Your task to perform on an android device: toggle show notifications on the lock screen Image 0: 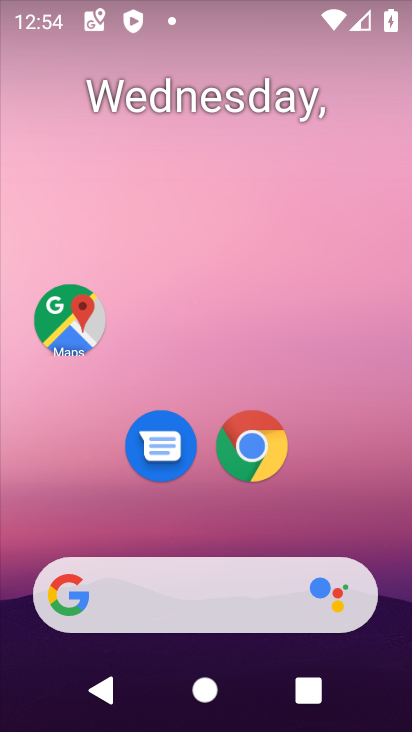
Step 0: drag from (199, 424) to (176, 54)
Your task to perform on an android device: toggle show notifications on the lock screen Image 1: 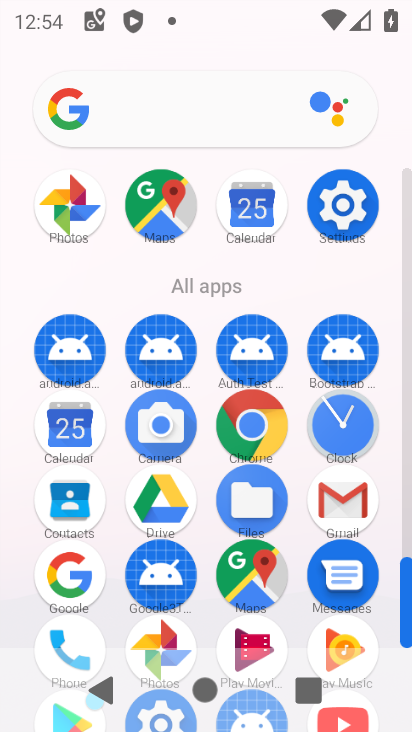
Step 1: click (345, 212)
Your task to perform on an android device: toggle show notifications on the lock screen Image 2: 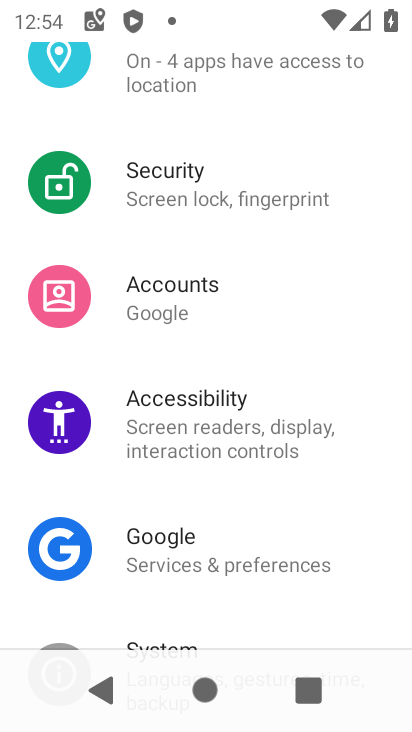
Step 2: drag from (202, 286) to (270, 638)
Your task to perform on an android device: toggle show notifications on the lock screen Image 3: 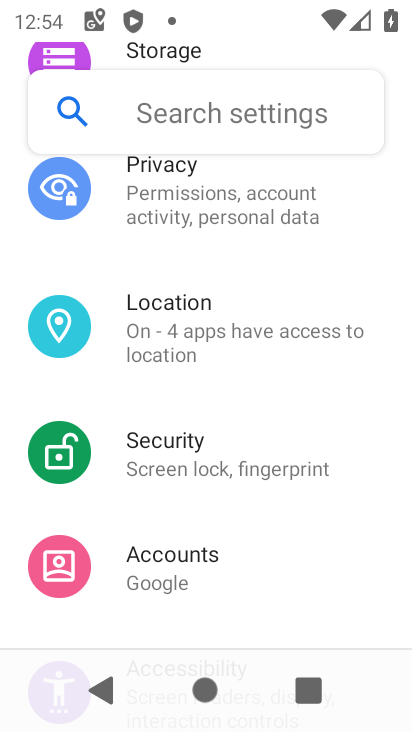
Step 3: drag from (309, 513) to (364, 709)
Your task to perform on an android device: toggle show notifications on the lock screen Image 4: 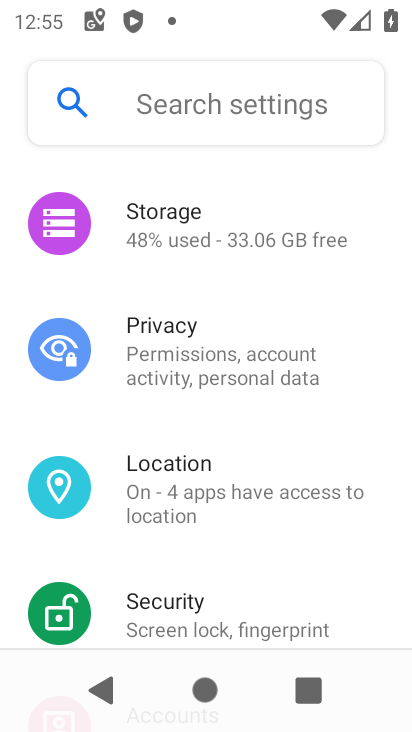
Step 4: drag from (271, 427) to (271, 682)
Your task to perform on an android device: toggle show notifications on the lock screen Image 5: 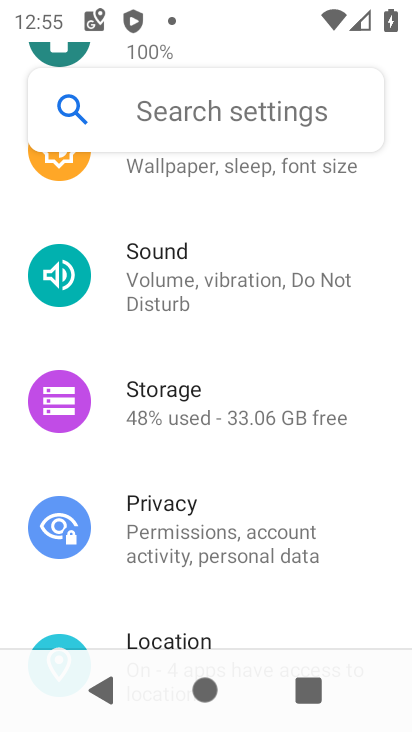
Step 5: drag from (245, 400) to (242, 694)
Your task to perform on an android device: toggle show notifications on the lock screen Image 6: 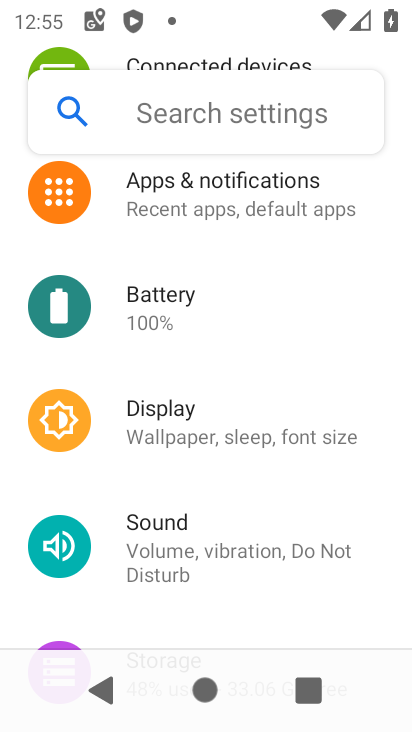
Step 6: drag from (181, 432) to (193, 607)
Your task to perform on an android device: toggle show notifications on the lock screen Image 7: 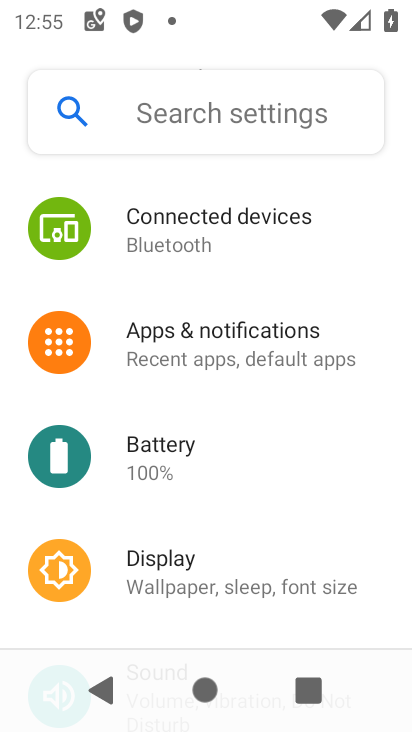
Step 7: click (219, 347)
Your task to perform on an android device: toggle show notifications on the lock screen Image 8: 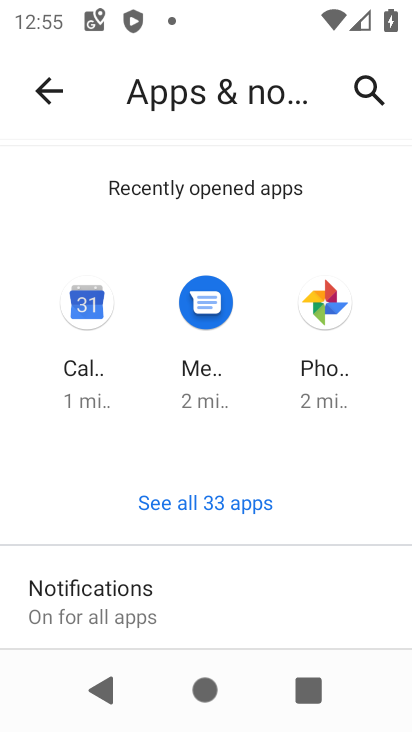
Step 8: drag from (279, 561) to (278, 326)
Your task to perform on an android device: toggle show notifications on the lock screen Image 9: 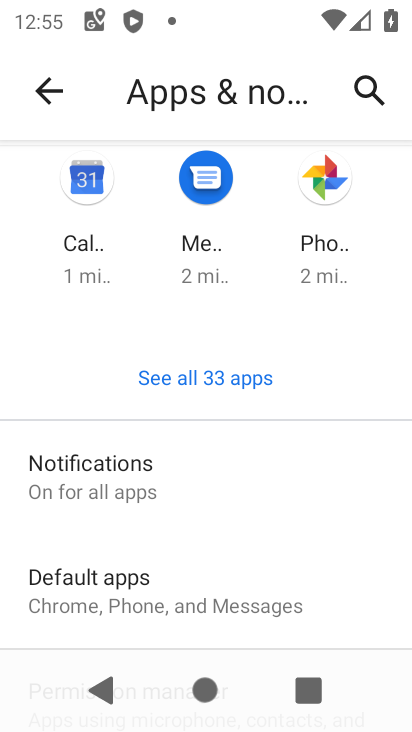
Step 9: click (166, 483)
Your task to perform on an android device: toggle show notifications on the lock screen Image 10: 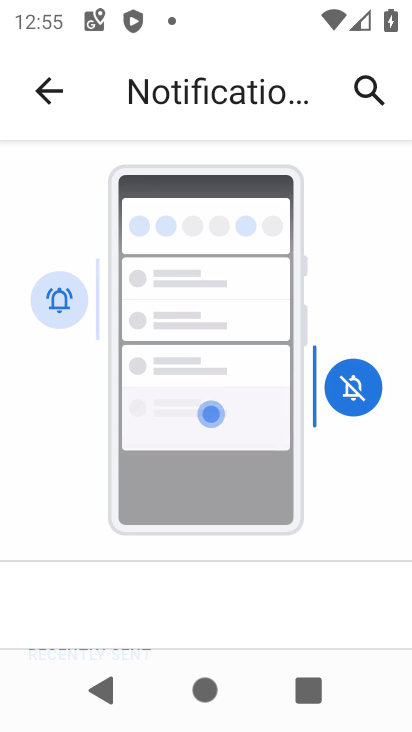
Step 10: drag from (240, 601) to (251, 247)
Your task to perform on an android device: toggle show notifications on the lock screen Image 11: 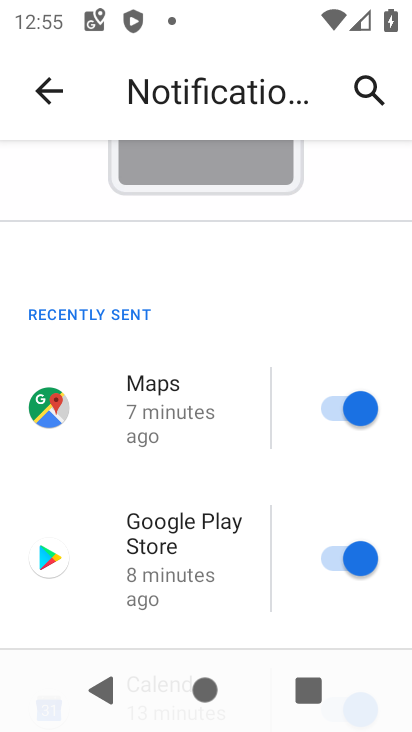
Step 11: drag from (225, 558) to (253, 87)
Your task to perform on an android device: toggle show notifications on the lock screen Image 12: 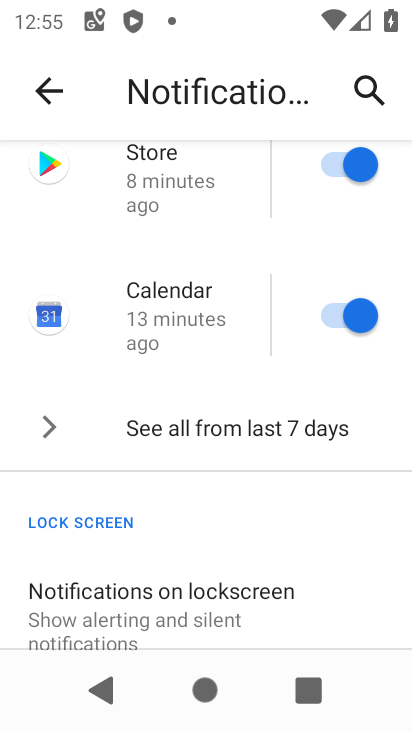
Step 12: click (207, 596)
Your task to perform on an android device: toggle show notifications on the lock screen Image 13: 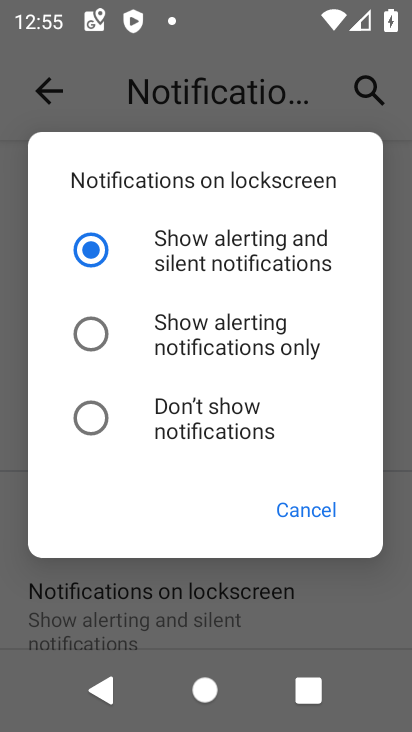
Step 13: click (163, 354)
Your task to perform on an android device: toggle show notifications on the lock screen Image 14: 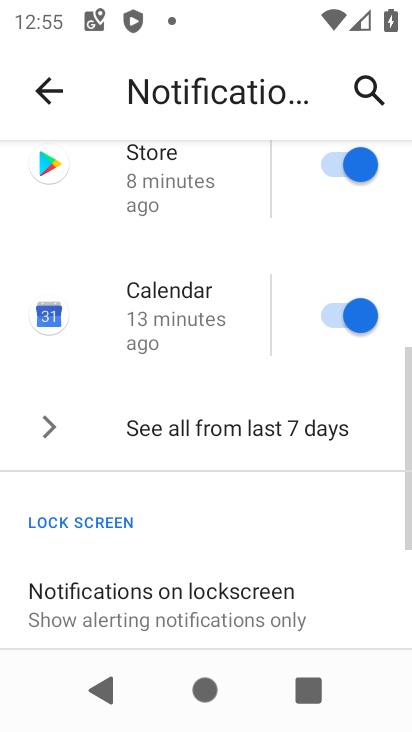
Step 14: task complete